Your task to perform on an android device: open app "Lyft - Rideshare, Bikes, Scooters & Transit" (install if not already installed) and go to login screen Image 0: 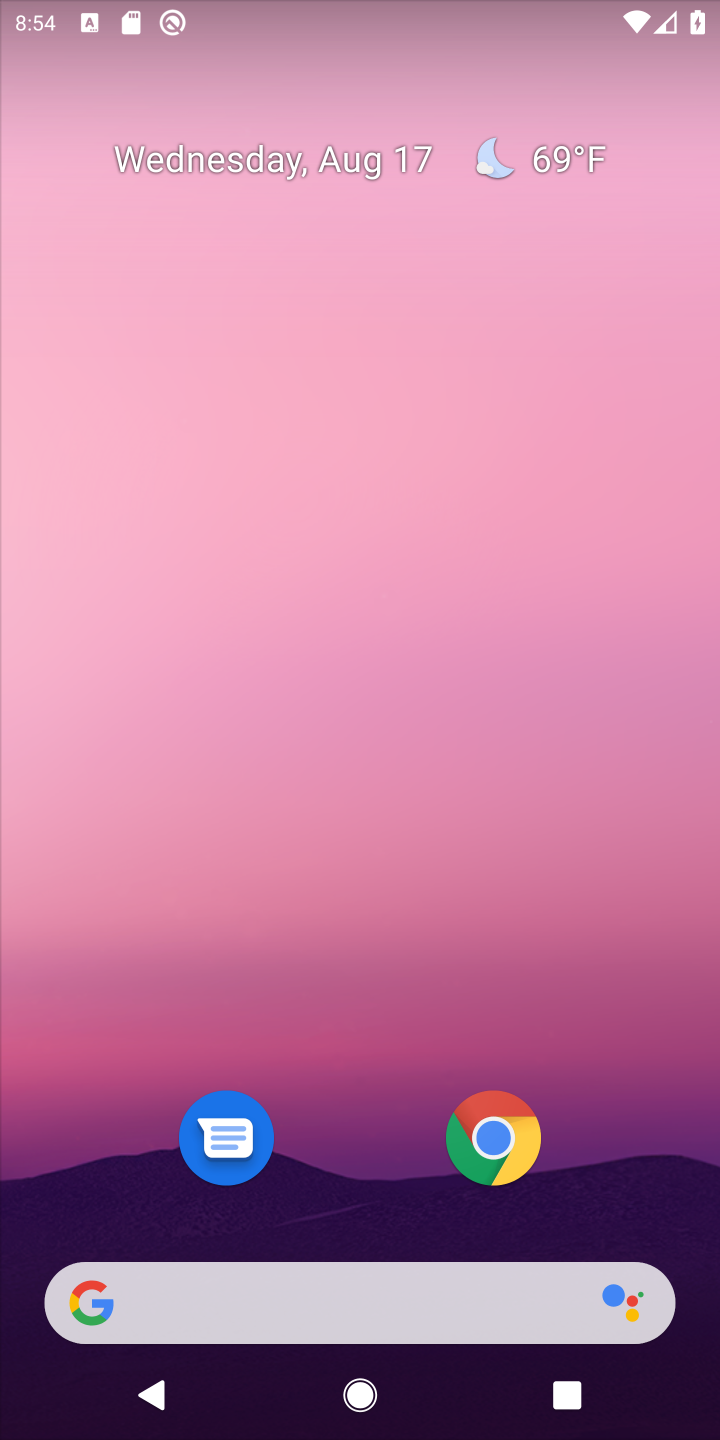
Step 0: drag from (313, 887) to (334, 303)
Your task to perform on an android device: open app "Lyft - Rideshare, Bikes, Scooters & Transit" (install if not already installed) and go to login screen Image 1: 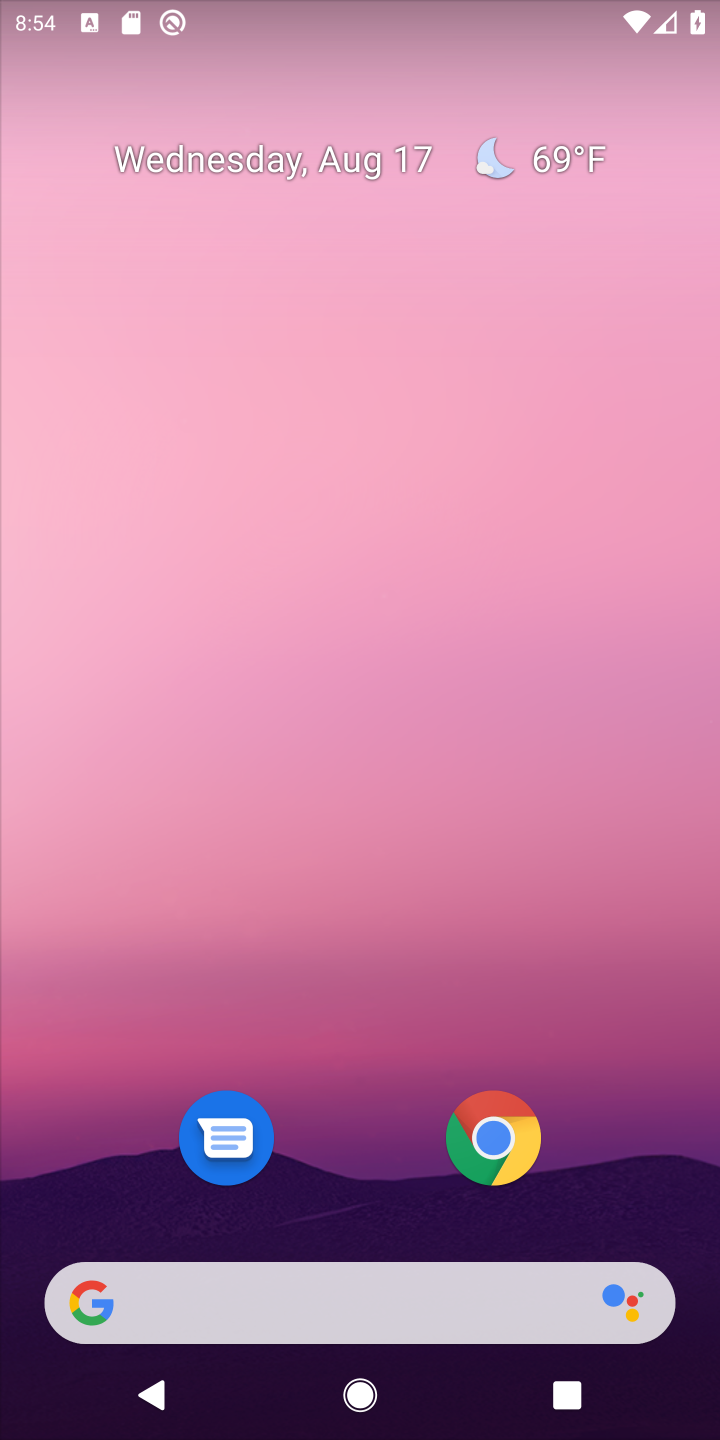
Step 1: drag from (305, 1253) to (330, 222)
Your task to perform on an android device: open app "Lyft - Rideshare, Bikes, Scooters & Transit" (install if not already installed) and go to login screen Image 2: 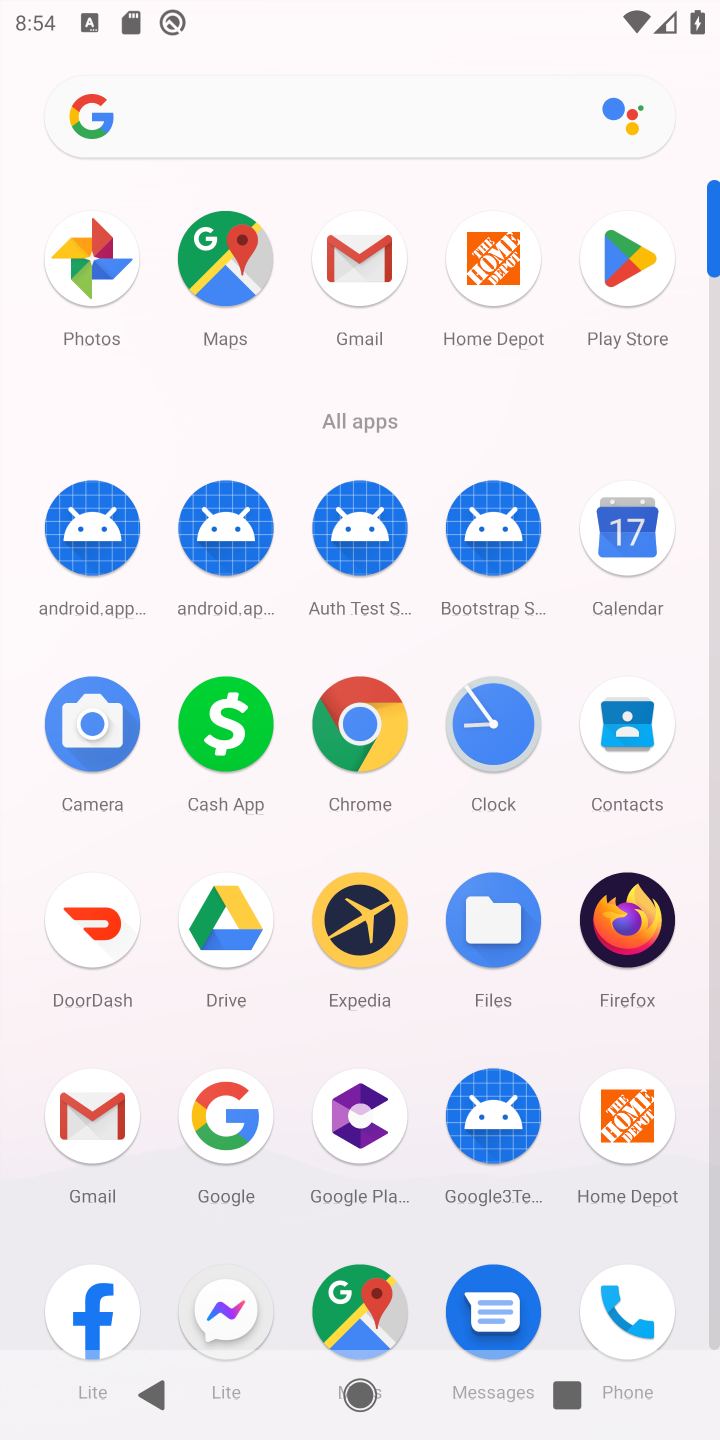
Step 2: click (633, 284)
Your task to perform on an android device: open app "Lyft - Rideshare, Bikes, Scooters & Transit" (install if not already installed) and go to login screen Image 3: 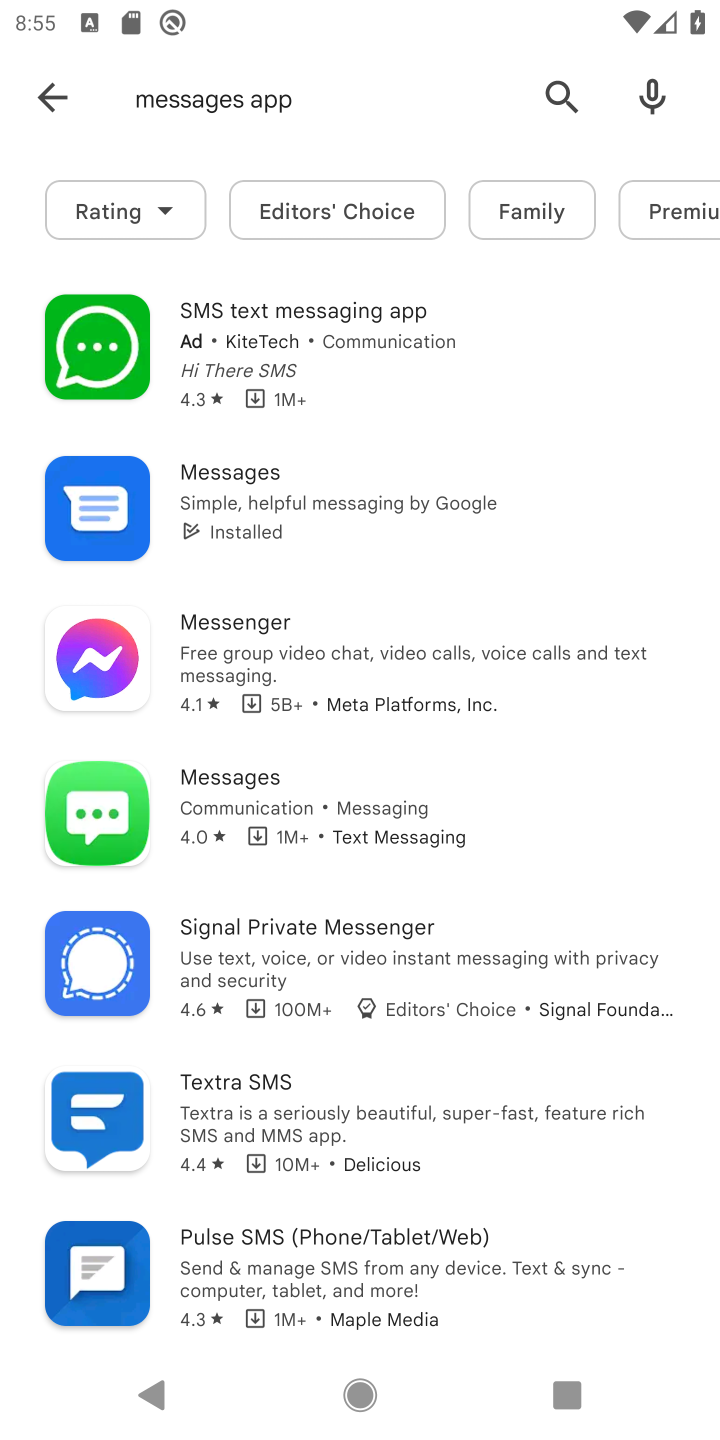
Step 3: click (52, 88)
Your task to perform on an android device: open app "Lyft - Rideshare, Bikes, Scooters & Transit" (install if not already installed) and go to login screen Image 4: 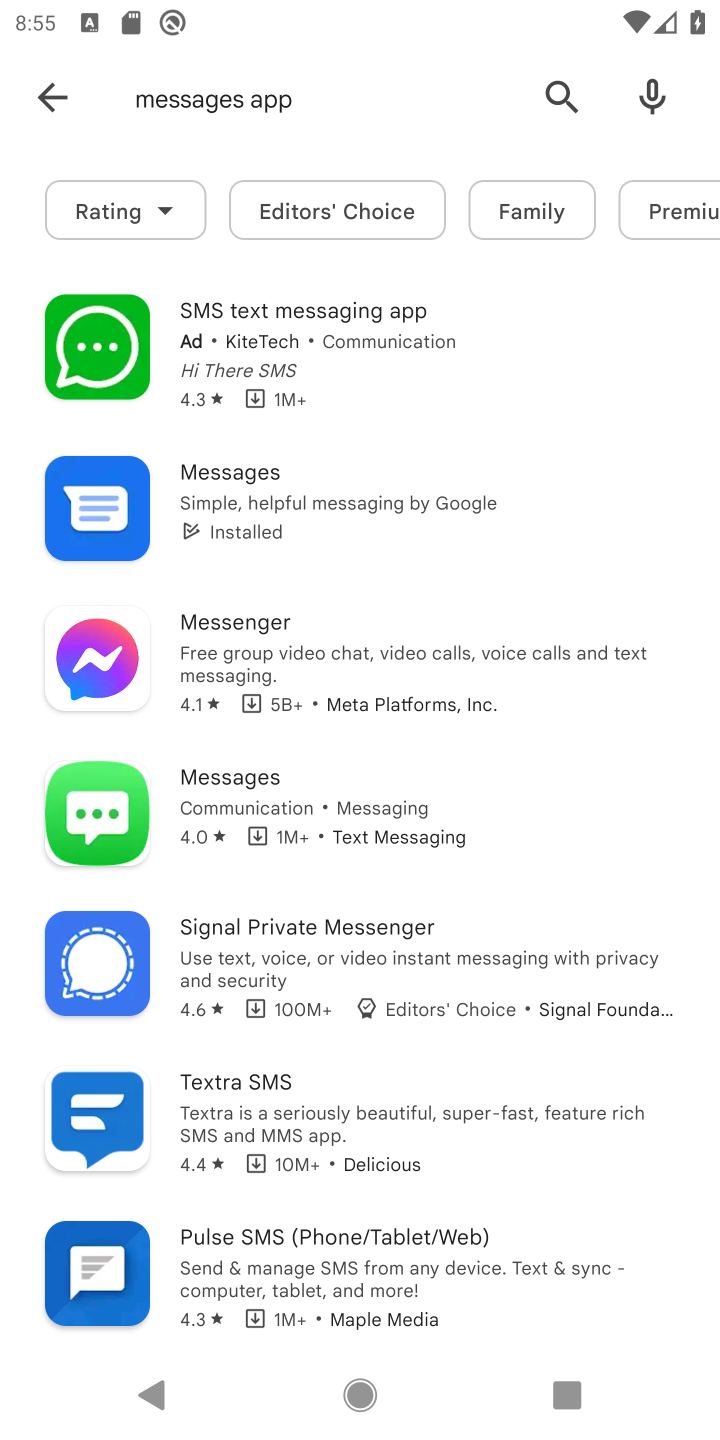
Step 4: click (547, 92)
Your task to perform on an android device: open app "Lyft - Rideshare, Bikes, Scooters & Transit" (install if not already installed) and go to login screen Image 5: 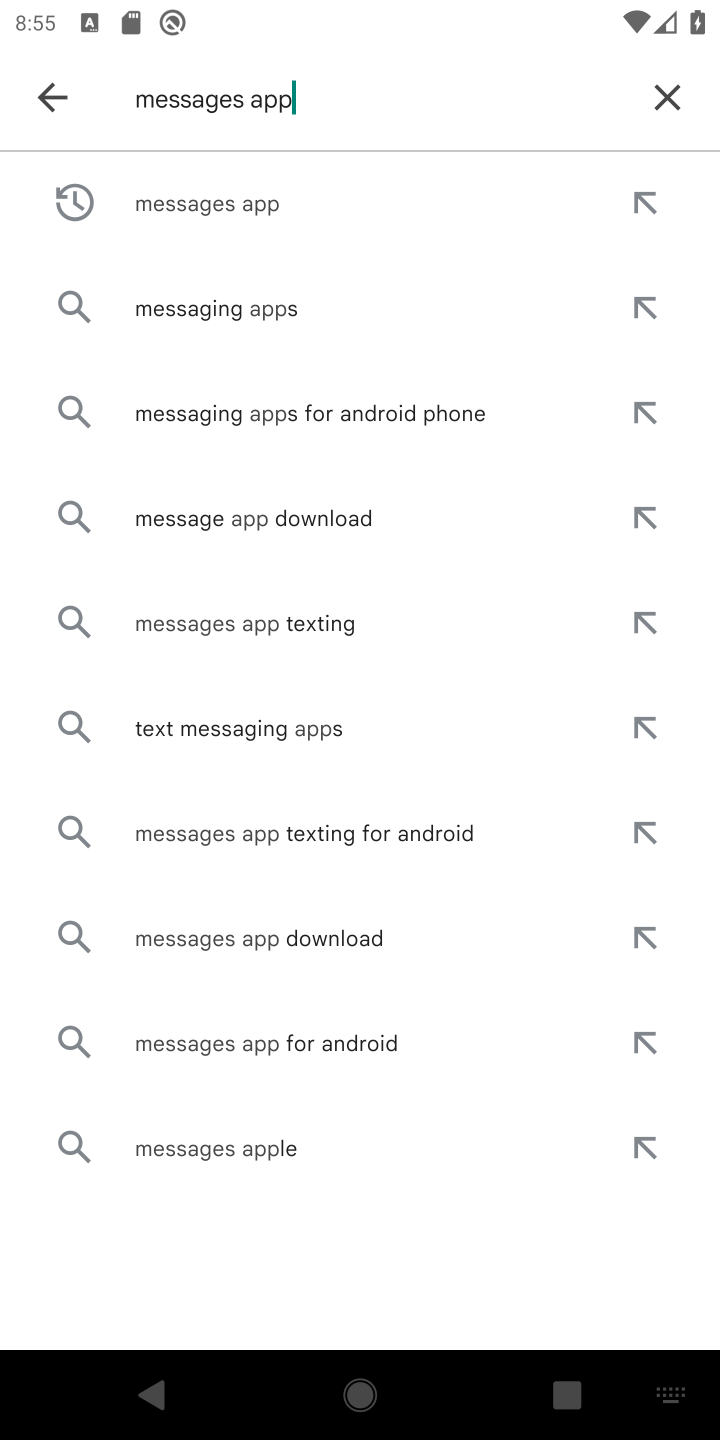
Step 5: click (660, 92)
Your task to perform on an android device: open app "Lyft - Rideshare, Bikes, Scooters & Transit" (install if not already installed) and go to login screen Image 6: 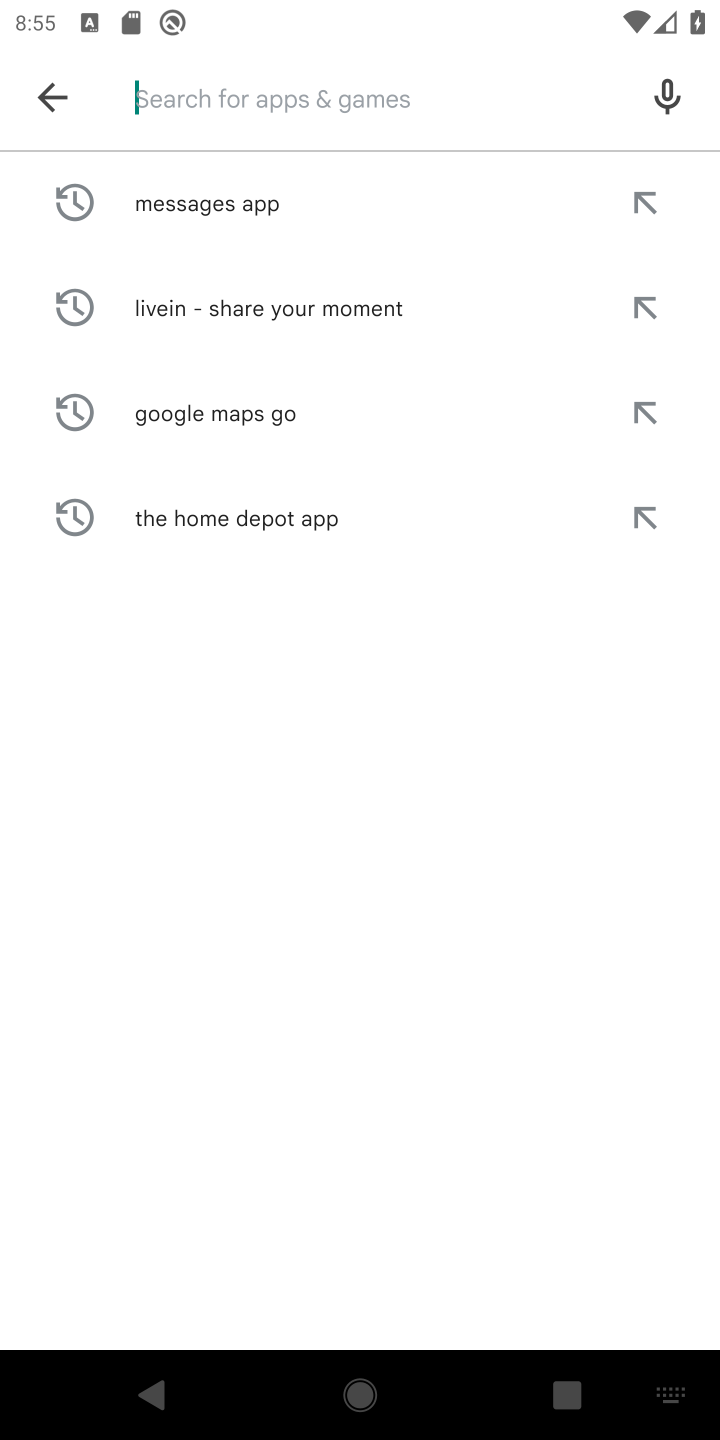
Step 6: click (168, 82)
Your task to perform on an android device: open app "Lyft - Rideshare, Bikes, Scooters & Transit" (install if not already installed) and go to login screen Image 7: 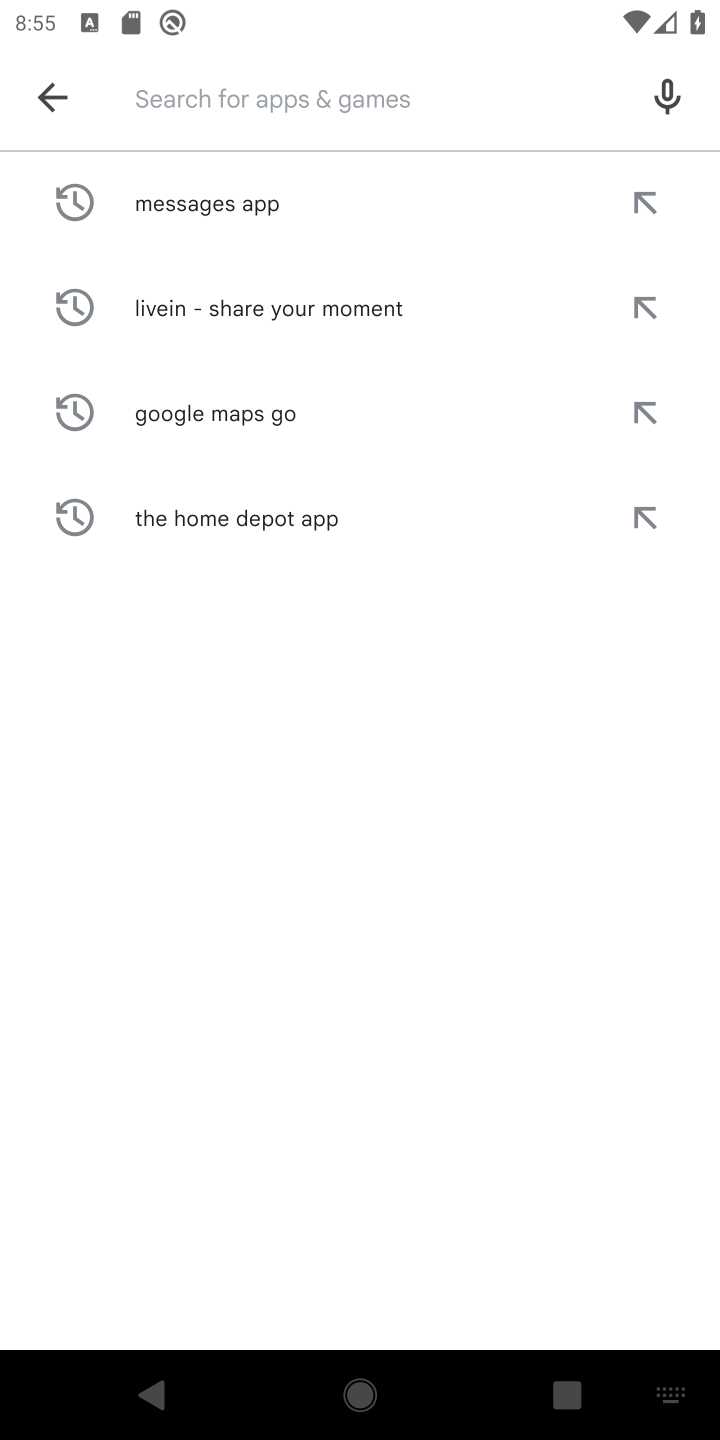
Step 7: type "lyft "
Your task to perform on an android device: open app "Lyft - Rideshare, Bikes, Scooters & Transit" (install if not already installed) and go to login screen Image 8: 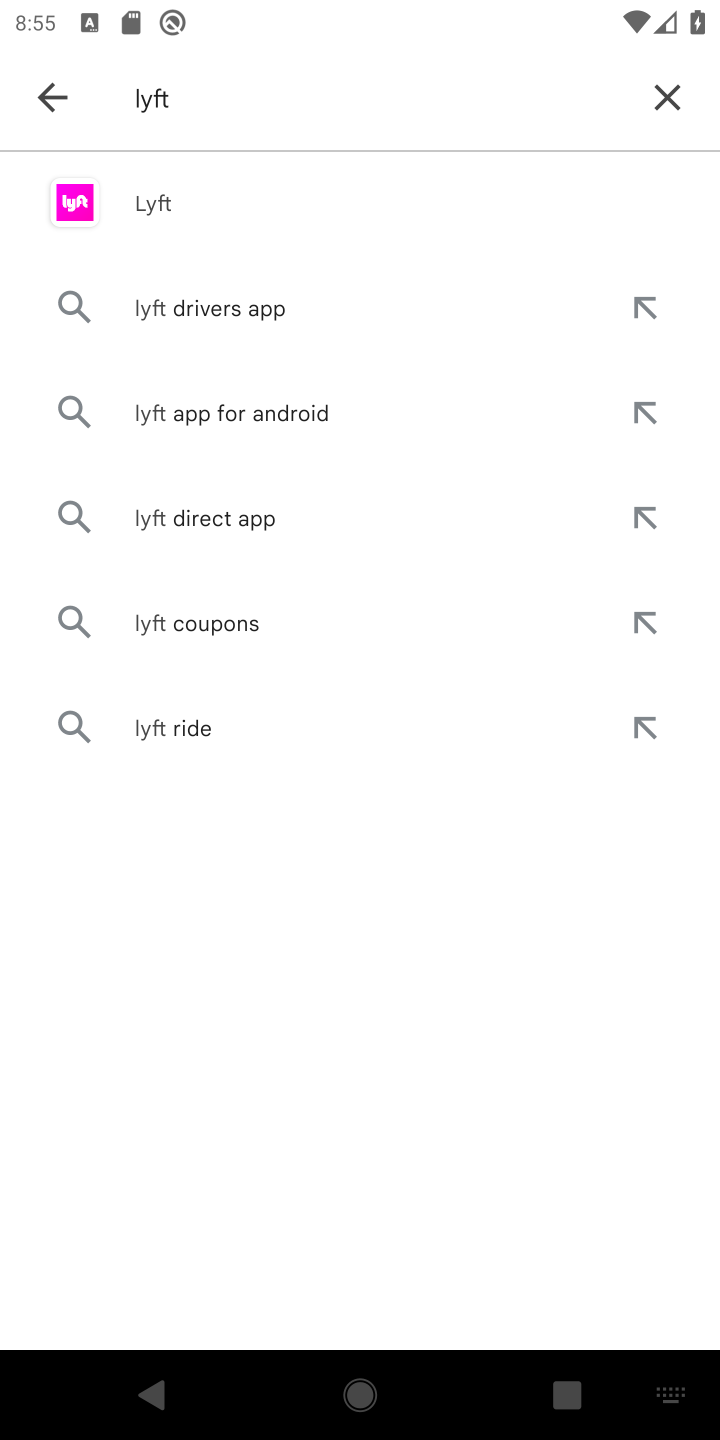
Step 8: click (177, 190)
Your task to perform on an android device: open app "Lyft - Rideshare, Bikes, Scooters & Transit" (install if not already installed) and go to login screen Image 9: 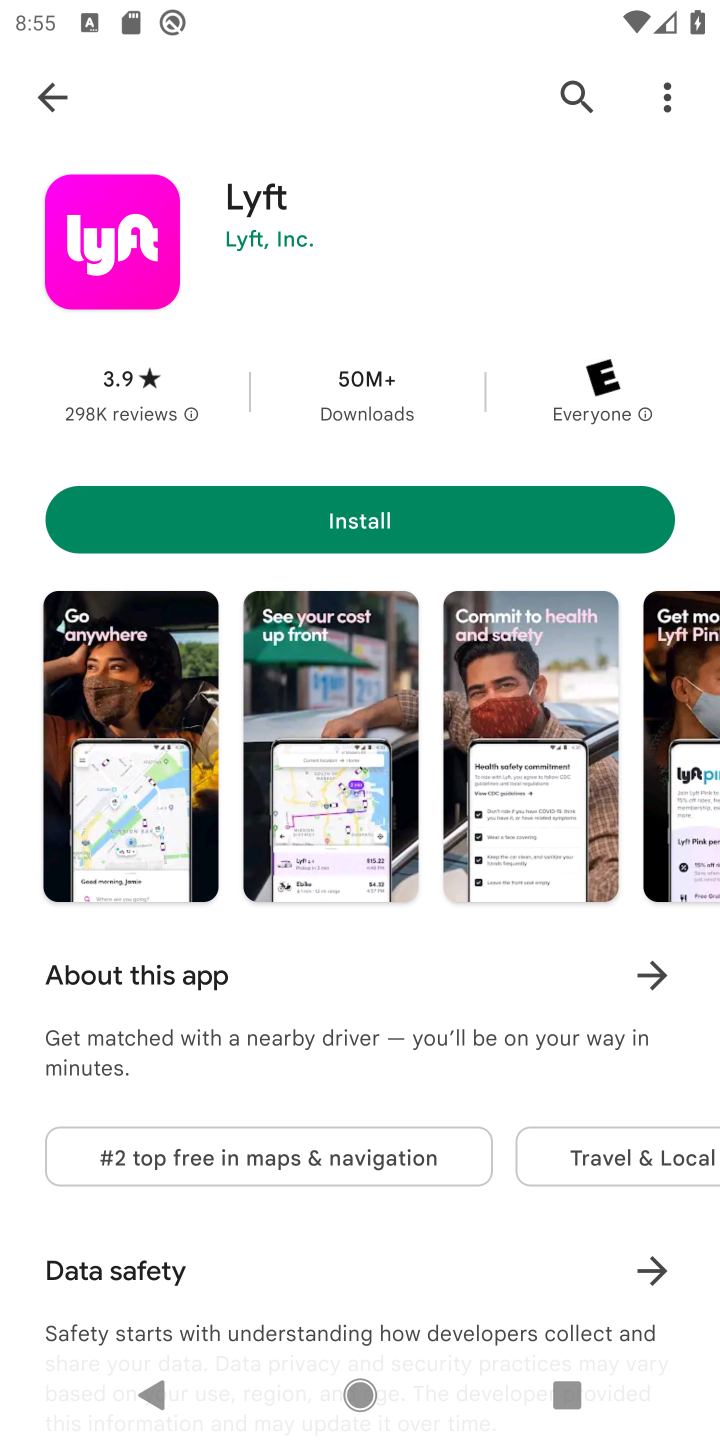
Step 9: click (38, 95)
Your task to perform on an android device: open app "Lyft - Rideshare, Bikes, Scooters & Transit" (install if not already installed) and go to login screen Image 10: 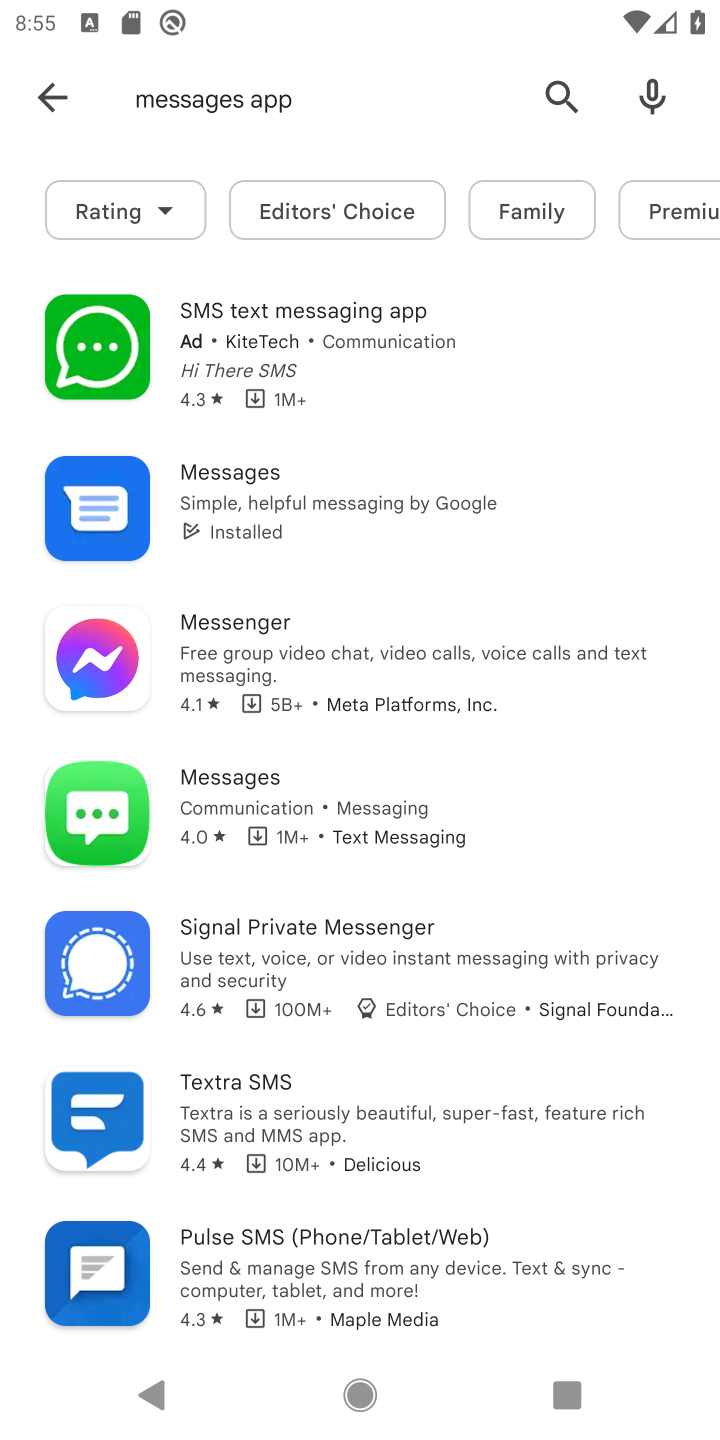
Step 10: click (571, 80)
Your task to perform on an android device: open app "Lyft - Rideshare, Bikes, Scooters & Transit" (install if not already installed) and go to login screen Image 11: 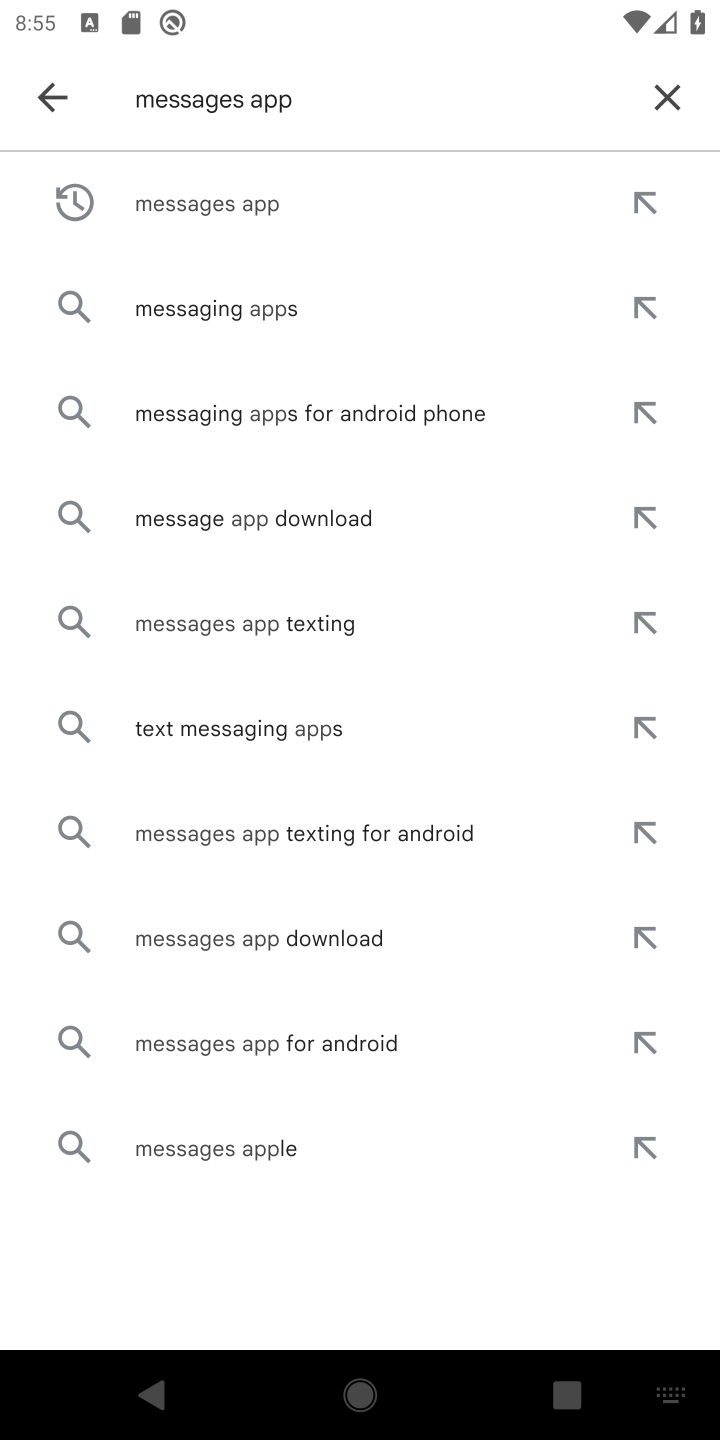
Step 11: click (662, 106)
Your task to perform on an android device: open app "Lyft - Rideshare, Bikes, Scooters & Transit" (install if not already installed) and go to login screen Image 12: 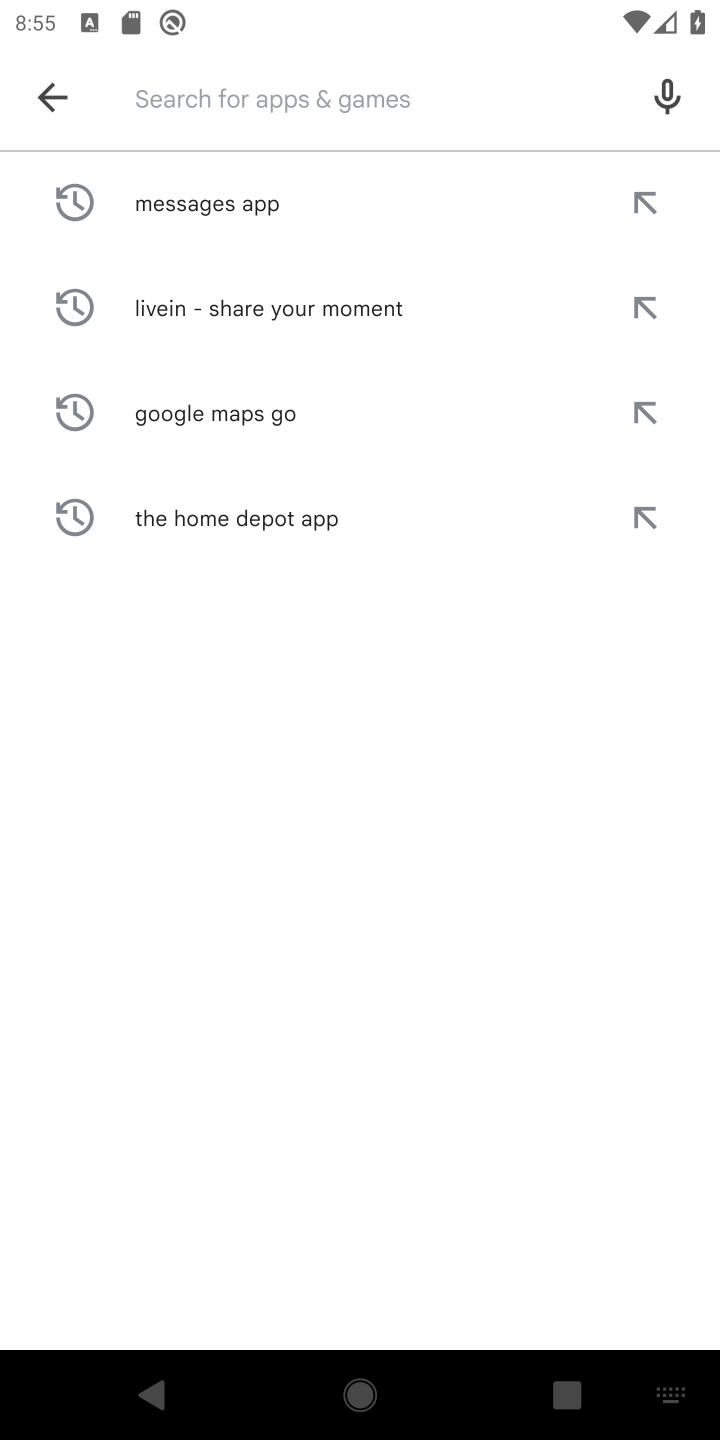
Step 12: click (362, 98)
Your task to perform on an android device: open app "Lyft - Rideshare, Bikes, Scooters & Transit" (install if not already installed) and go to login screen Image 13: 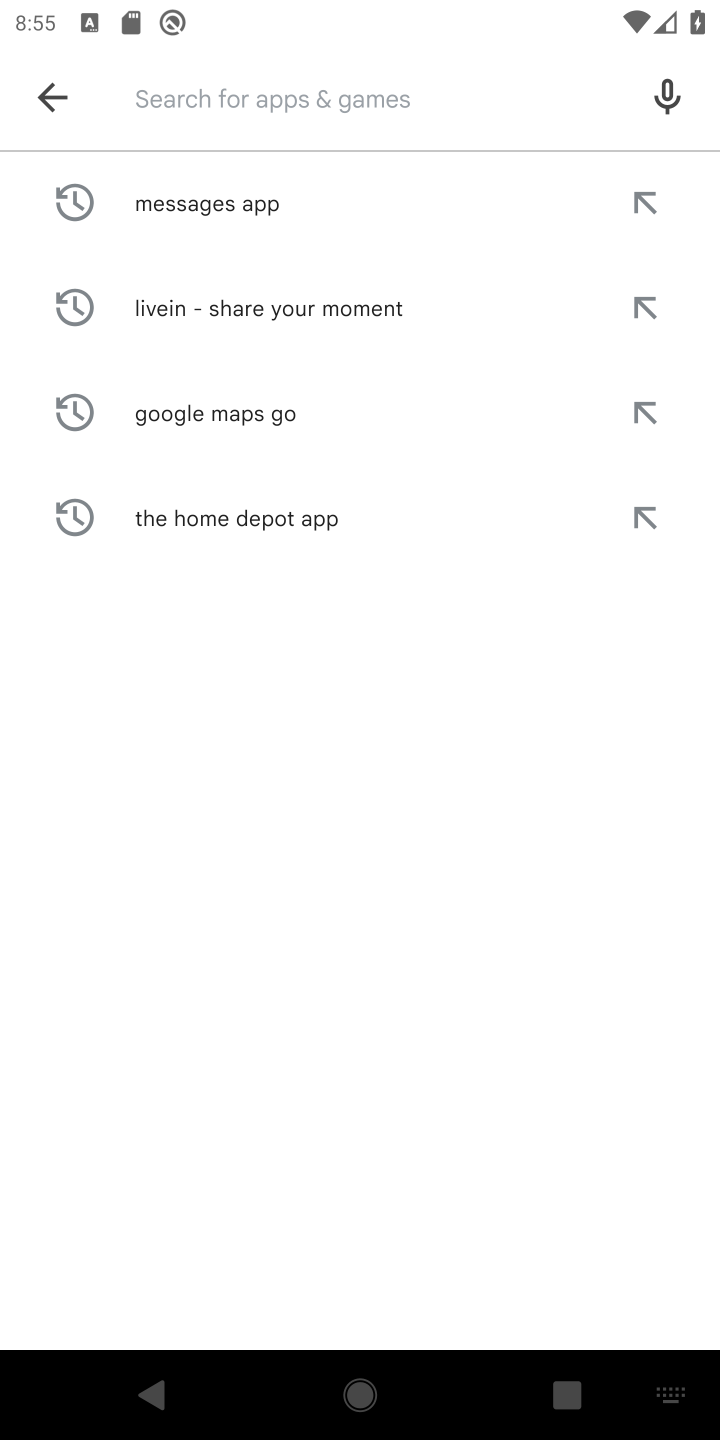
Step 13: type "Lyft - Rideshare, Bikes, Scooters & Transit "
Your task to perform on an android device: open app "Lyft - Rideshare, Bikes, Scooters & Transit" (install if not already installed) and go to login screen Image 14: 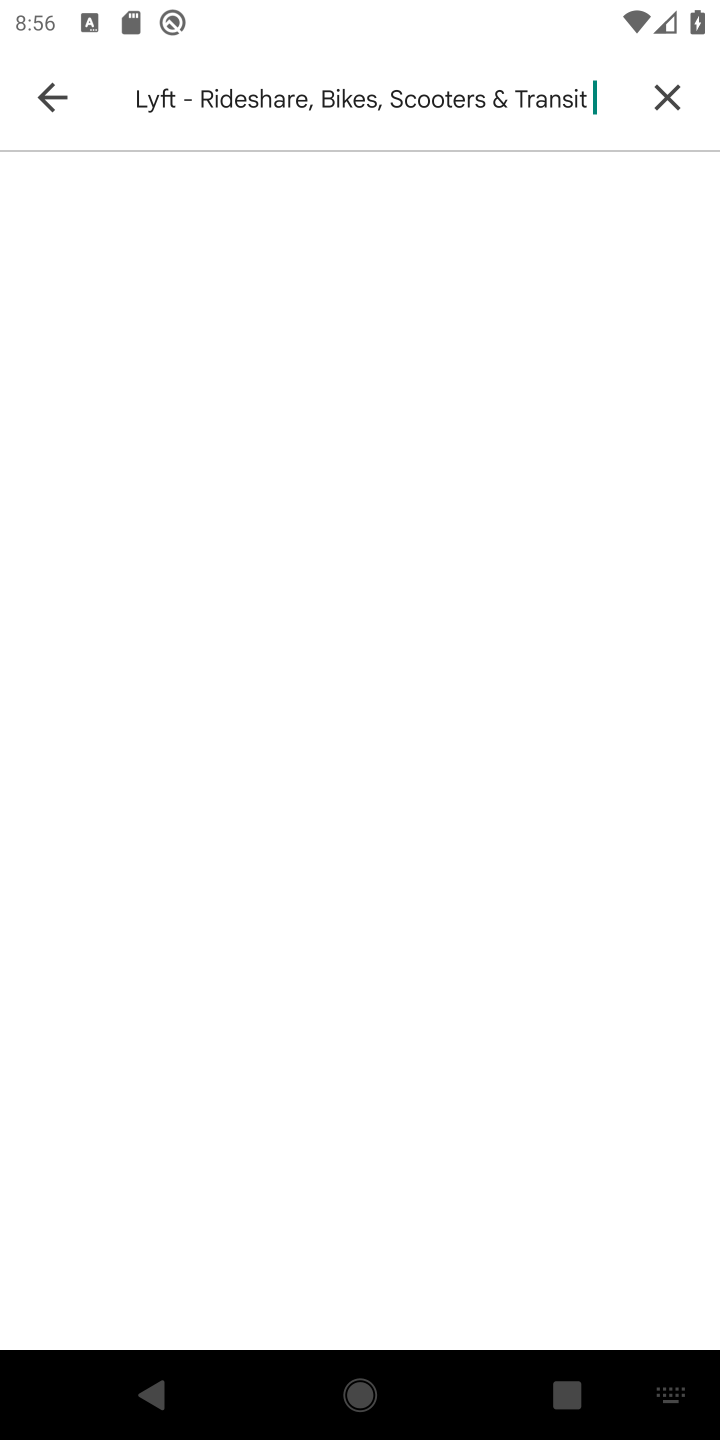
Step 14: drag from (196, 88) to (592, 106)
Your task to perform on an android device: open app "Lyft - Rideshare, Bikes, Scooters & Transit" (install if not already installed) and go to login screen Image 15: 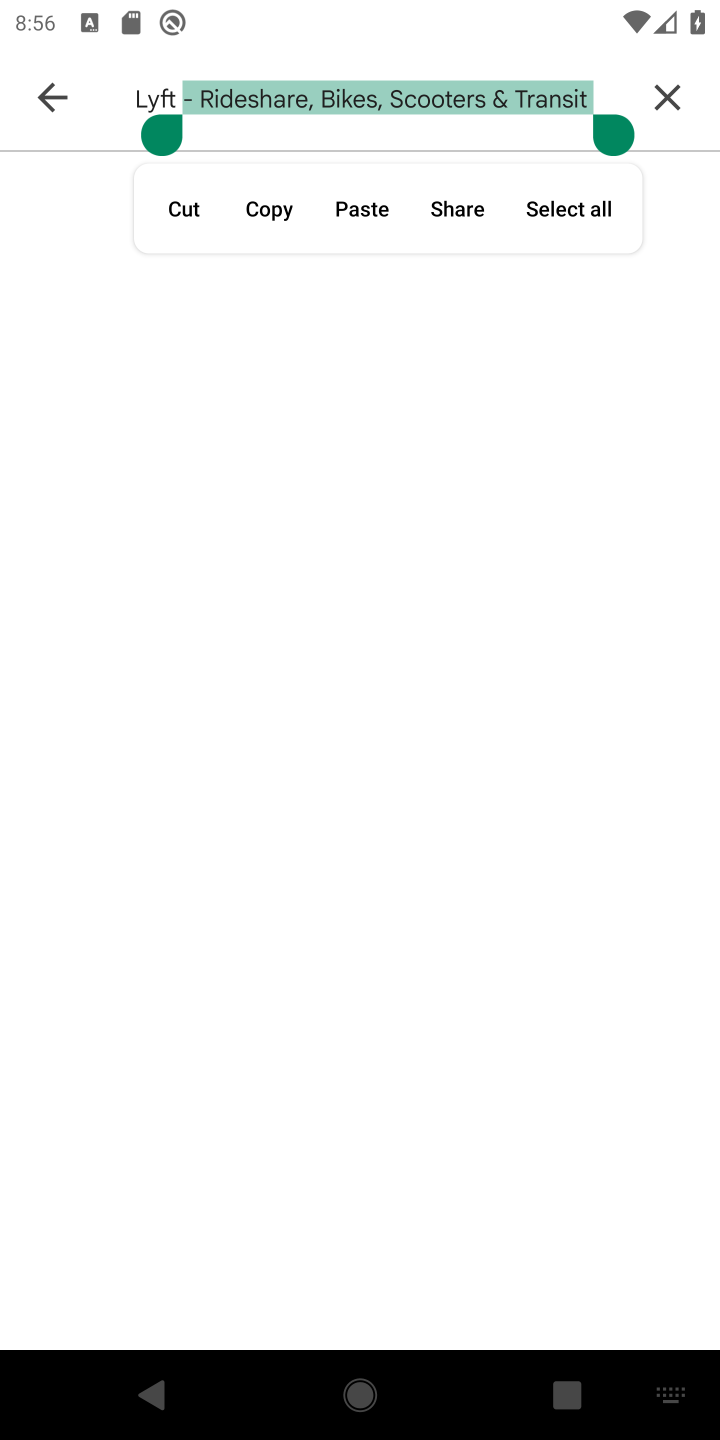
Step 15: click (184, 193)
Your task to perform on an android device: open app "Lyft - Rideshare, Bikes, Scooters & Transit" (install if not already installed) and go to login screen Image 16: 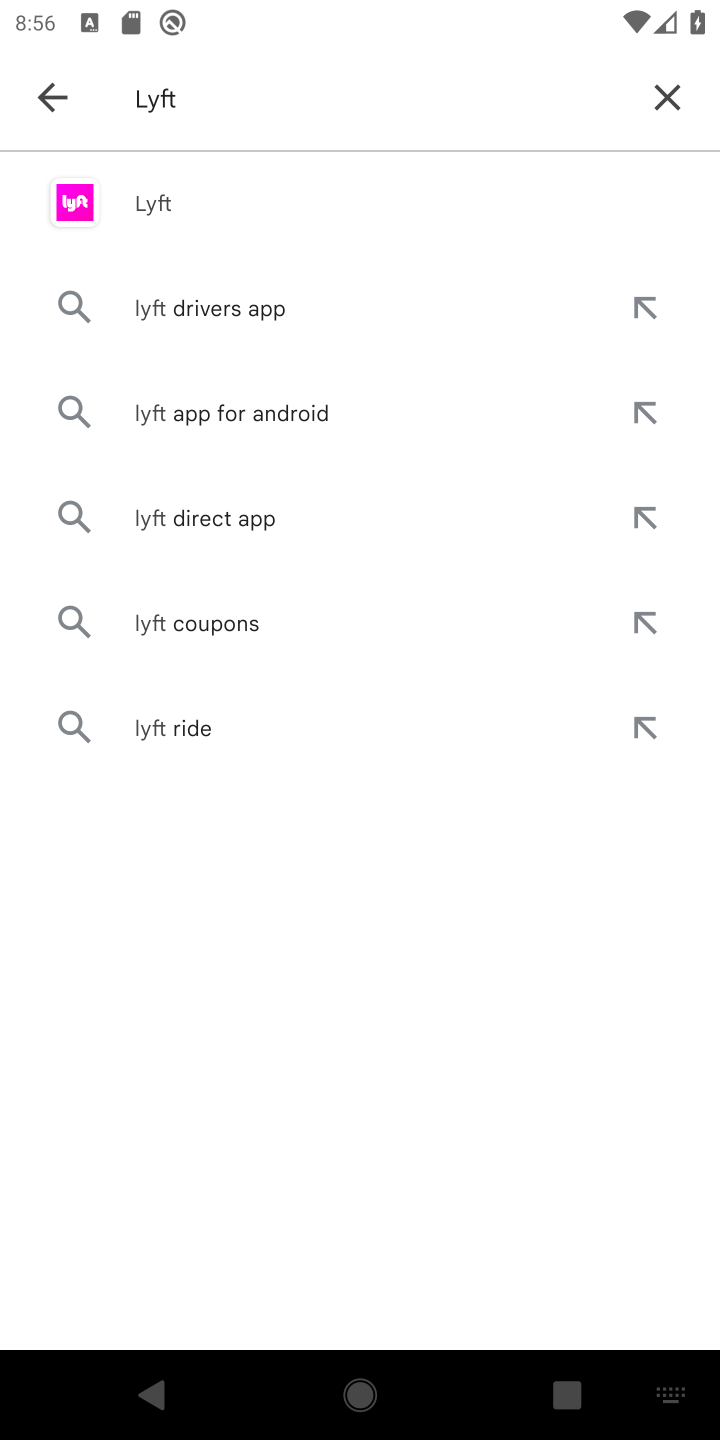
Step 16: click (250, 307)
Your task to perform on an android device: open app "Lyft - Rideshare, Bikes, Scooters & Transit" (install if not already installed) and go to login screen Image 17: 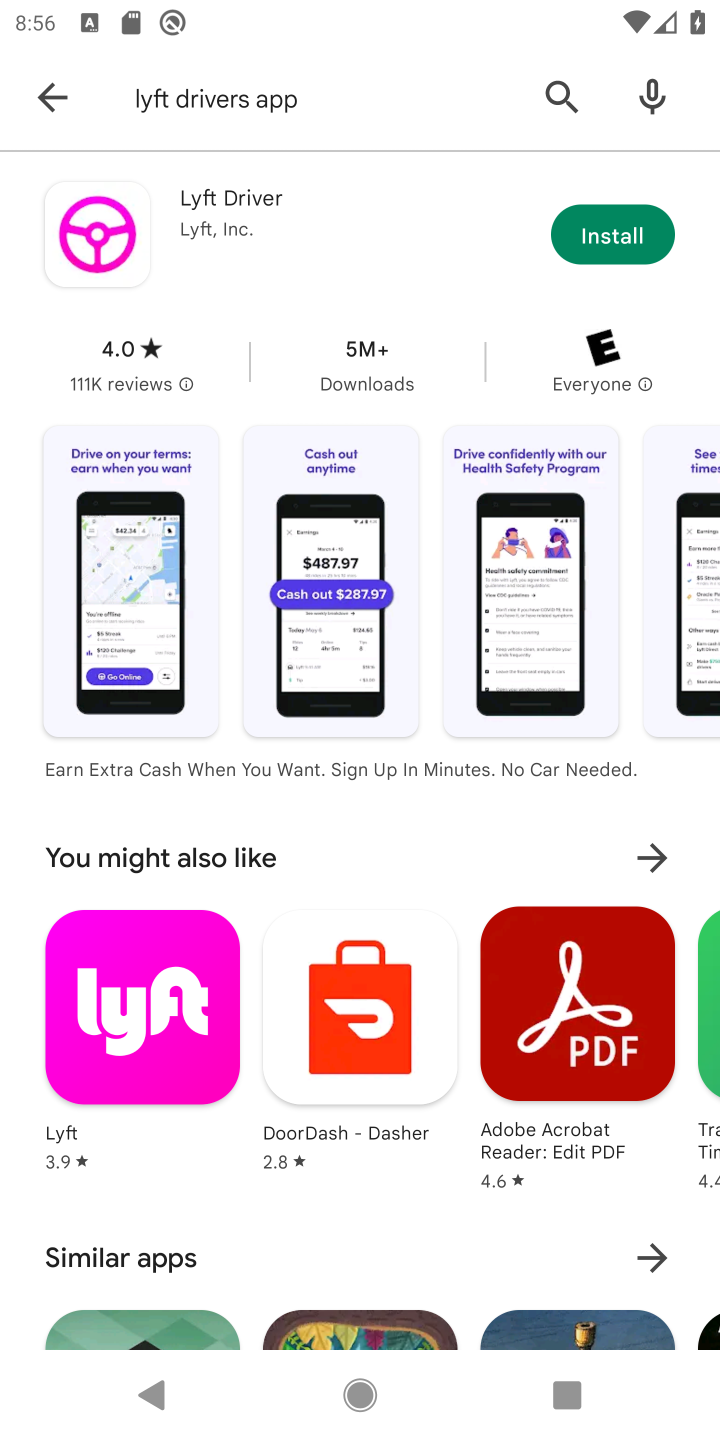
Step 17: click (606, 231)
Your task to perform on an android device: open app "Lyft - Rideshare, Bikes, Scooters & Transit" (install if not already installed) and go to login screen Image 18: 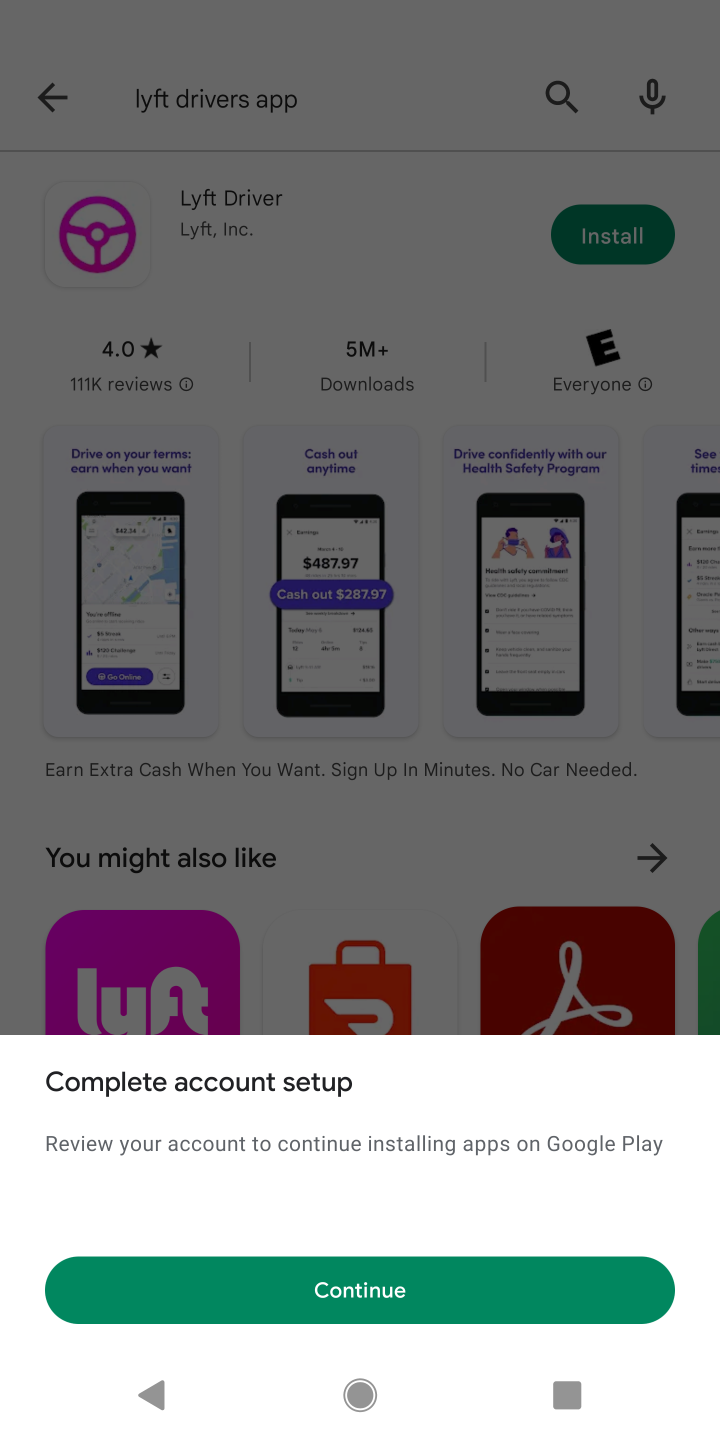
Step 18: task complete